Your task to perform on an android device: Open privacy settings Image 0: 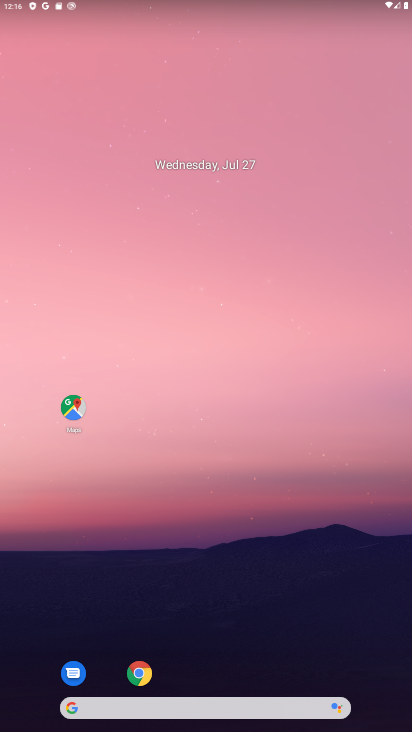
Step 0: drag from (221, 659) to (218, 16)
Your task to perform on an android device: Open privacy settings Image 1: 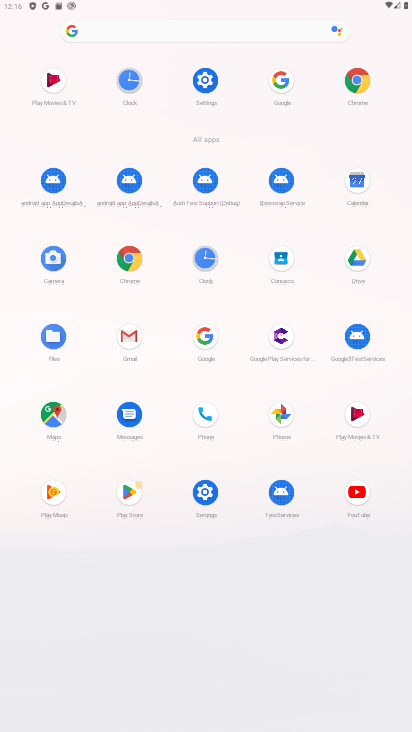
Step 1: click (199, 81)
Your task to perform on an android device: Open privacy settings Image 2: 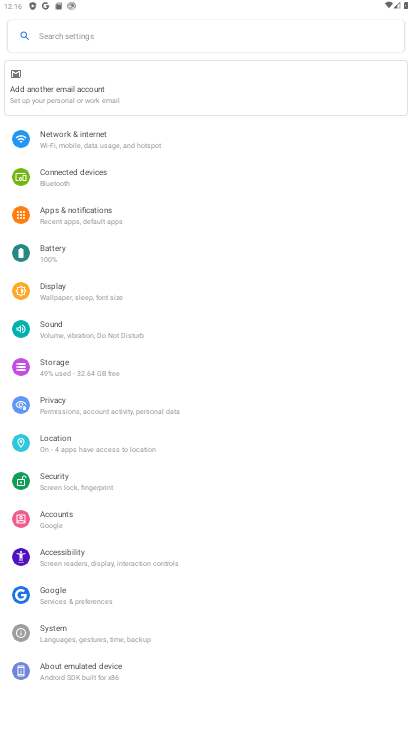
Step 2: click (53, 413)
Your task to perform on an android device: Open privacy settings Image 3: 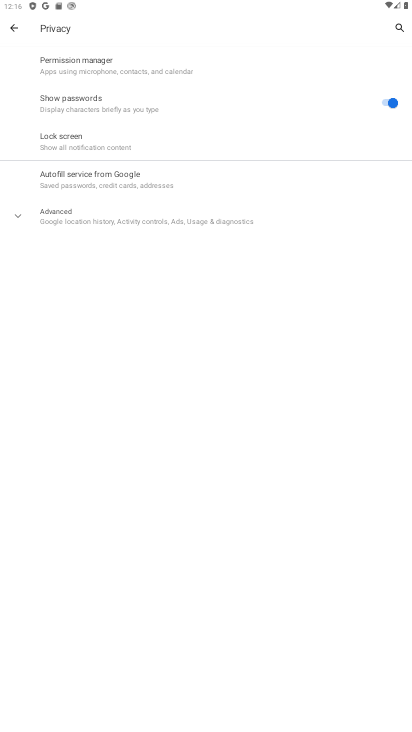
Step 3: task complete